Your task to perform on an android device: Go to Yahoo.com Image 0: 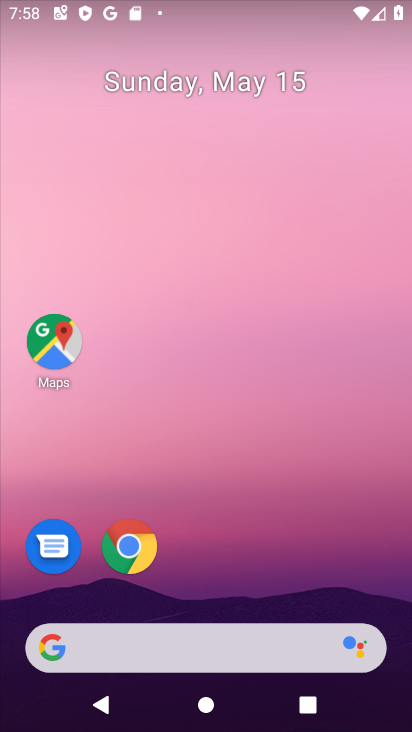
Step 0: click (215, 645)
Your task to perform on an android device: Go to Yahoo.com Image 1: 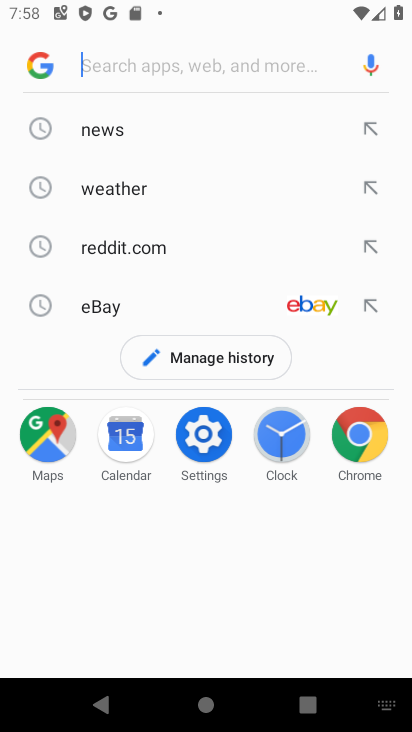
Step 1: type "yahoo.com"
Your task to perform on an android device: Go to Yahoo.com Image 2: 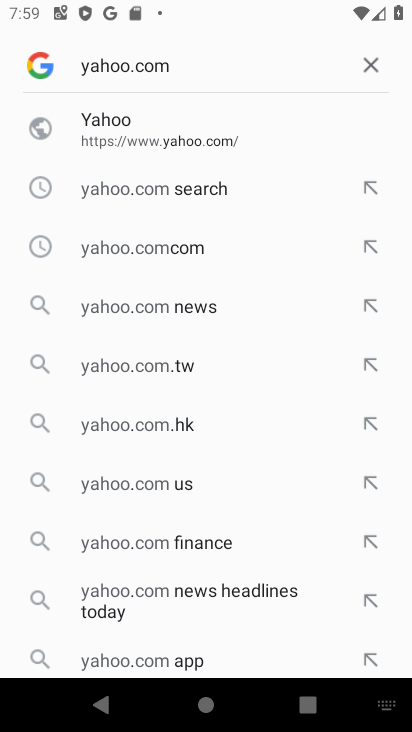
Step 2: click (117, 117)
Your task to perform on an android device: Go to Yahoo.com Image 3: 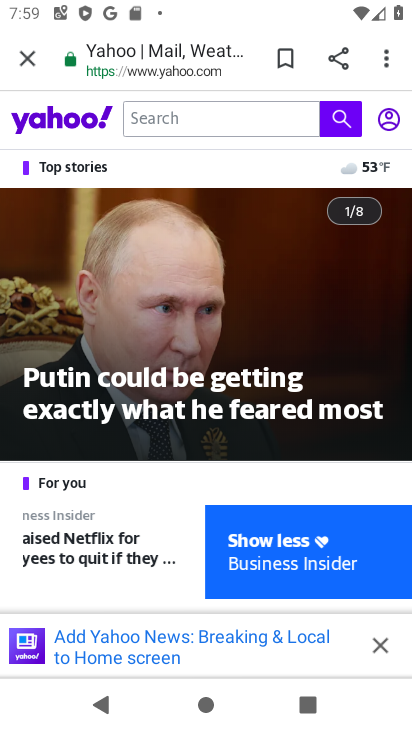
Step 3: task complete